Your task to perform on an android device: Search for sushi restaurants on Maps Image 0: 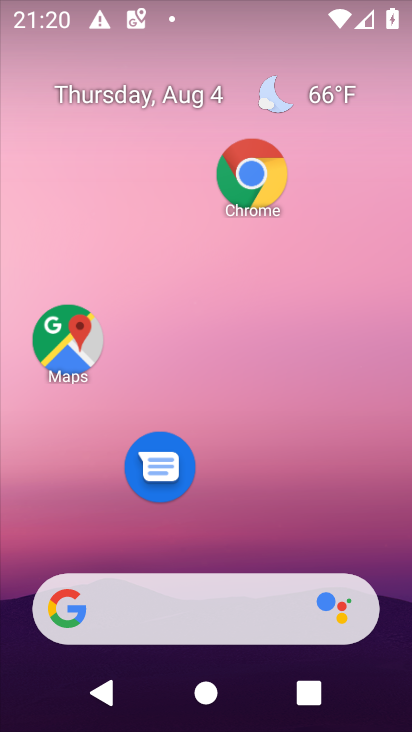
Step 0: click (63, 326)
Your task to perform on an android device: Search for sushi restaurants on Maps Image 1: 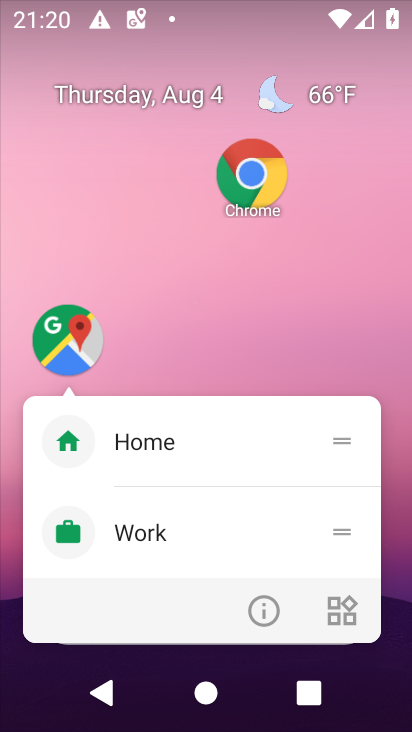
Step 1: click (63, 326)
Your task to perform on an android device: Search for sushi restaurants on Maps Image 2: 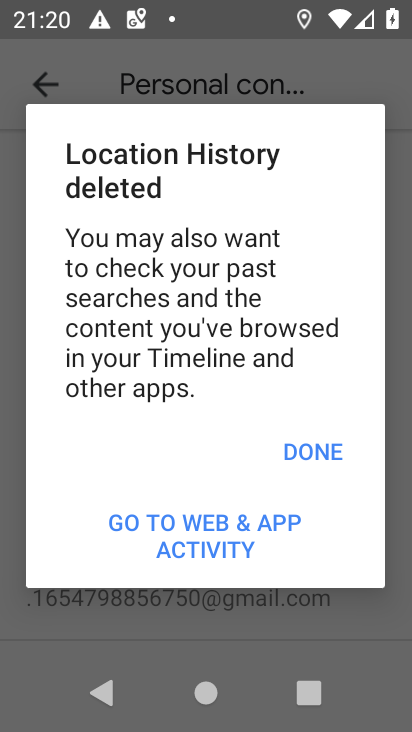
Step 2: click (322, 451)
Your task to perform on an android device: Search for sushi restaurants on Maps Image 3: 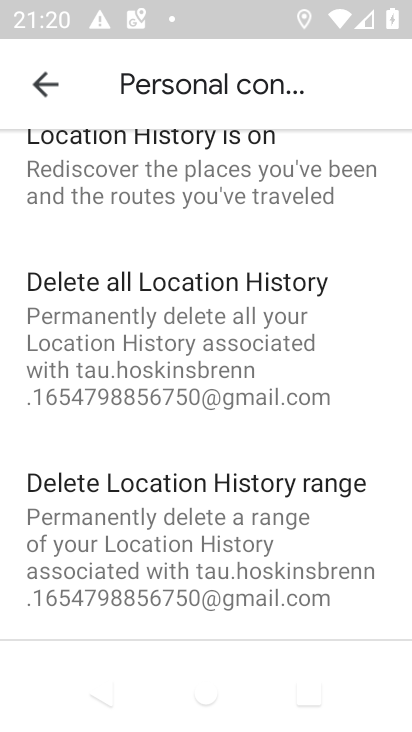
Step 3: click (52, 90)
Your task to perform on an android device: Search for sushi restaurants on Maps Image 4: 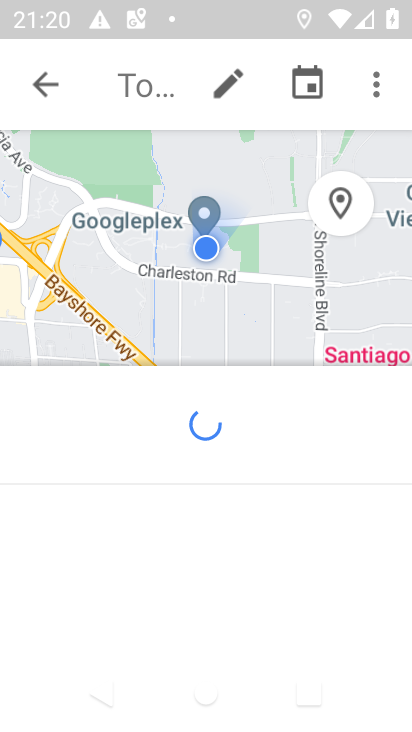
Step 4: click (52, 90)
Your task to perform on an android device: Search for sushi restaurants on Maps Image 5: 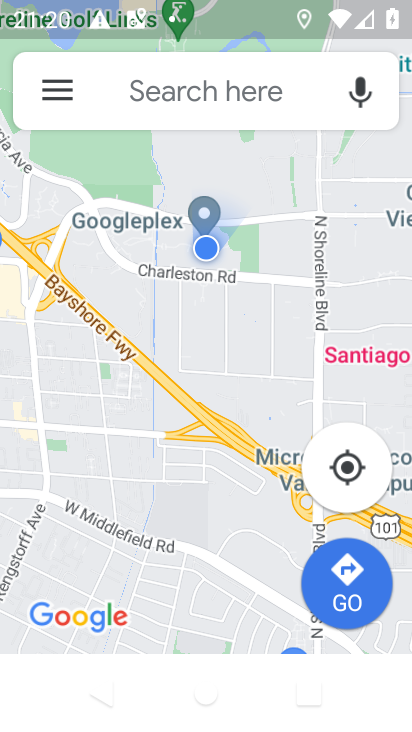
Step 5: click (215, 97)
Your task to perform on an android device: Search for sushi restaurants on Maps Image 6: 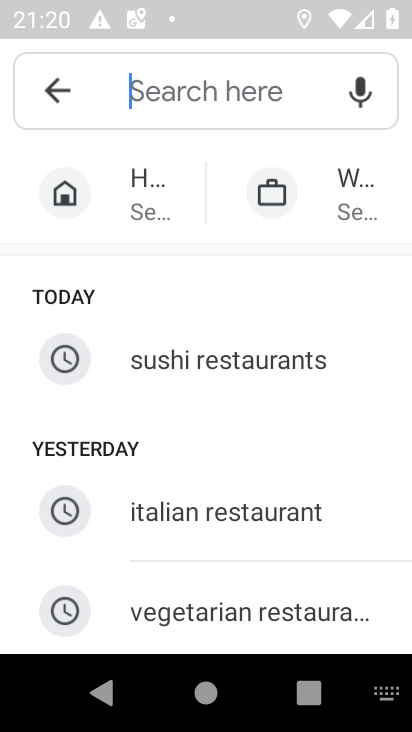
Step 6: type "sushi restaurants "
Your task to perform on an android device: Search for sushi restaurants on Maps Image 7: 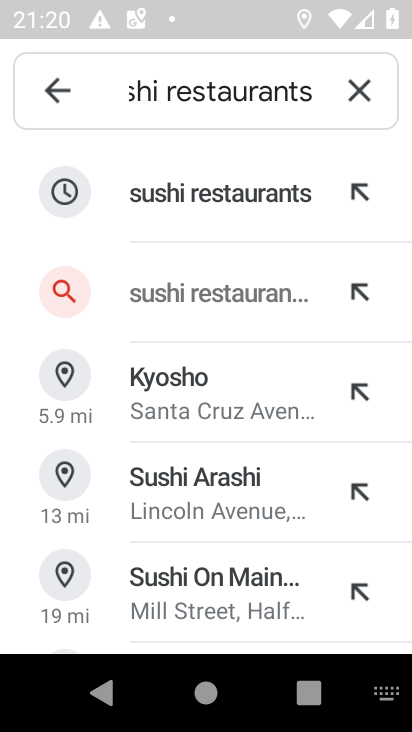
Step 7: click (172, 193)
Your task to perform on an android device: Search for sushi restaurants on Maps Image 8: 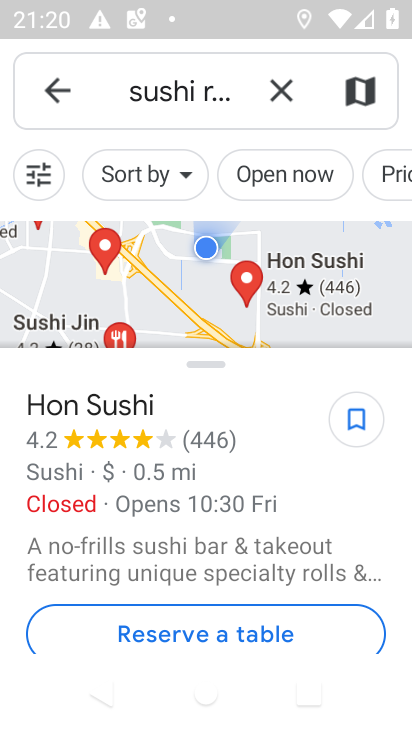
Step 8: task complete